Your task to perform on an android device: allow cookies in the chrome app Image 0: 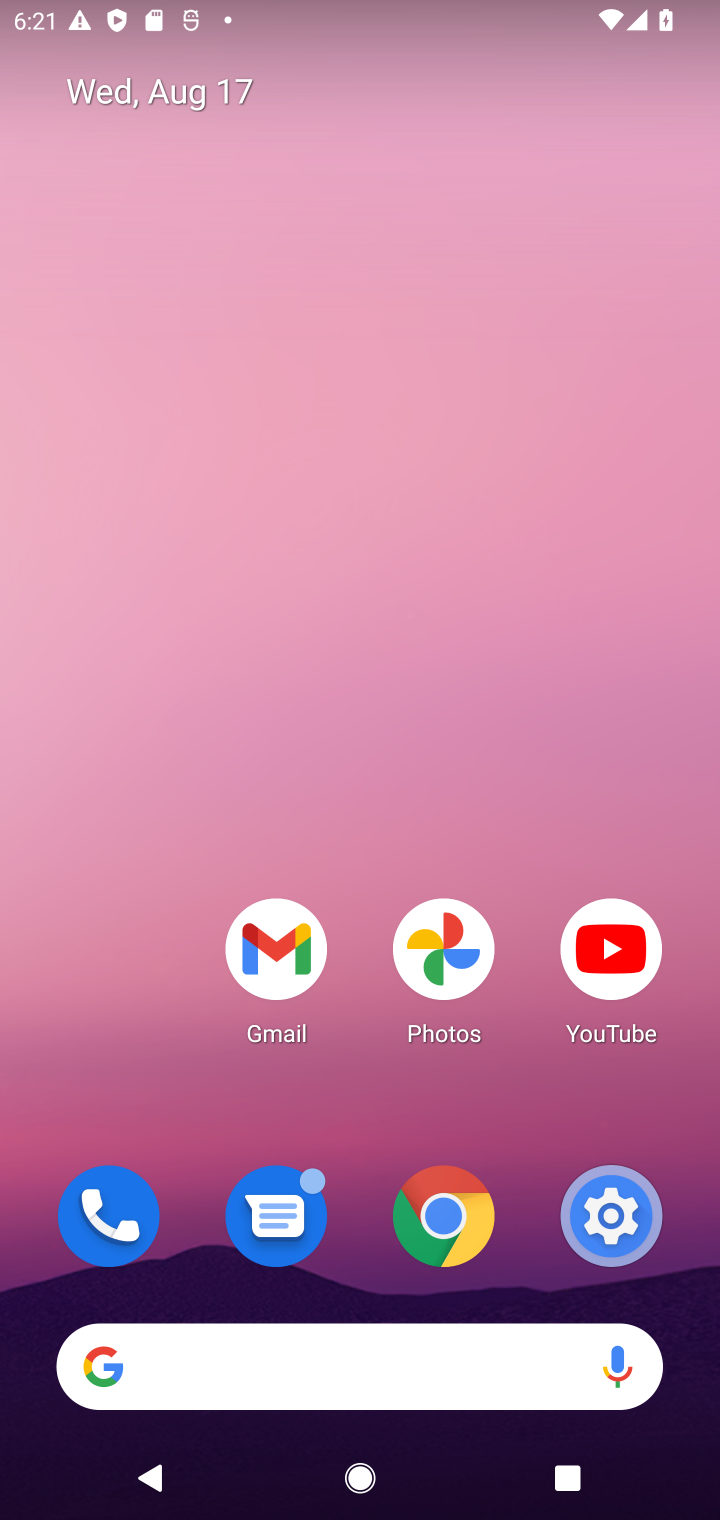
Step 0: drag from (387, 1265) to (418, 74)
Your task to perform on an android device: allow cookies in the chrome app Image 1: 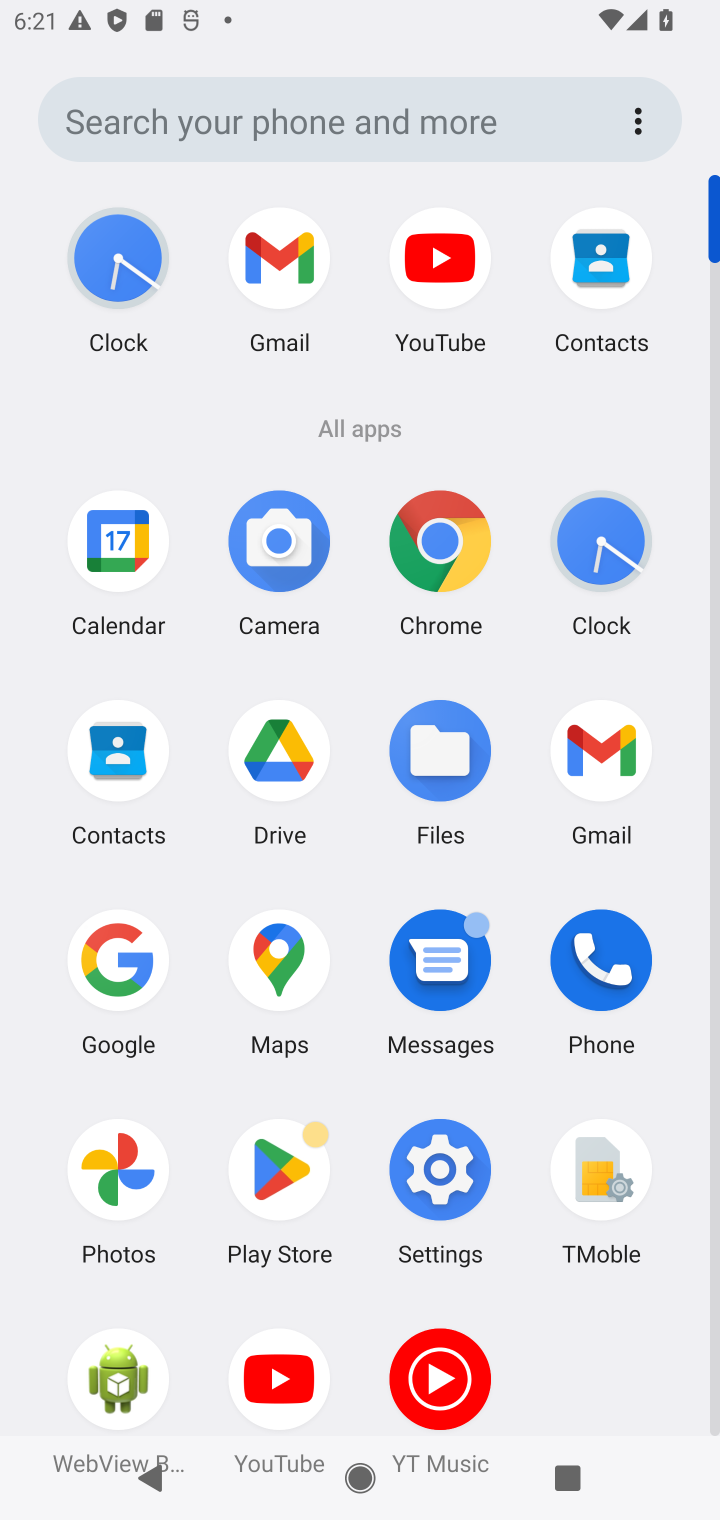
Step 1: click (404, 523)
Your task to perform on an android device: allow cookies in the chrome app Image 2: 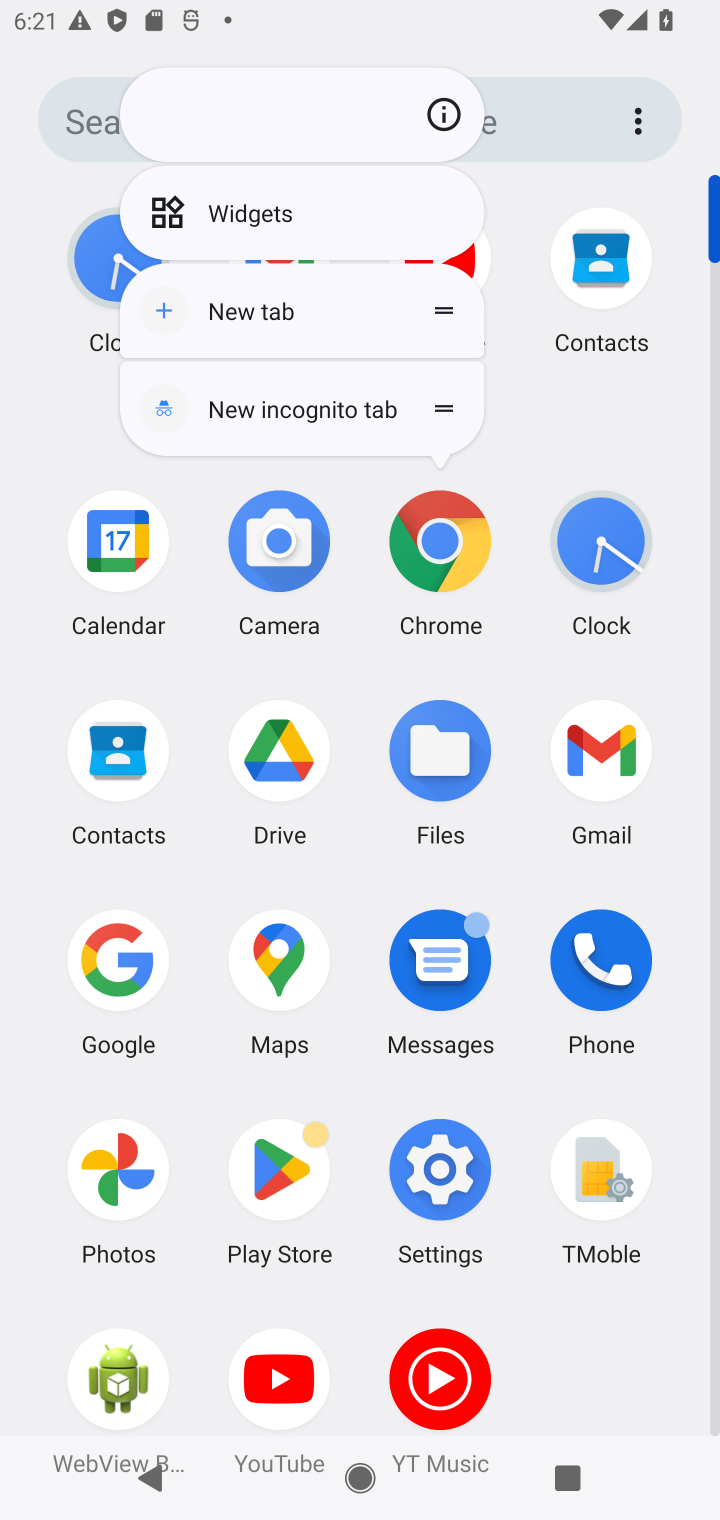
Step 2: click (457, 551)
Your task to perform on an android device: allow cookies in the chrome app Image 3: 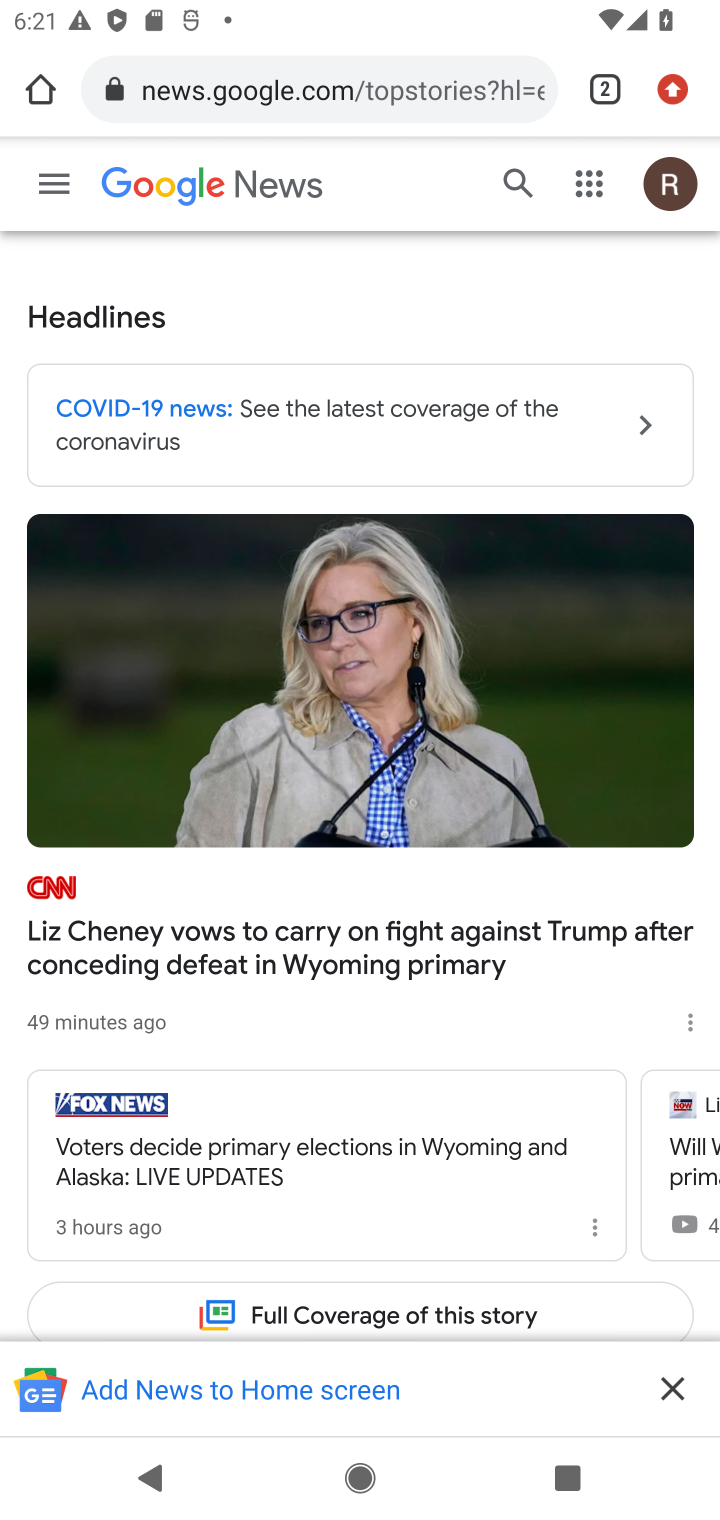
Step 3: click (256, 83)
Your task to perform on an android device: allow cookies in the chrome app Image 4: 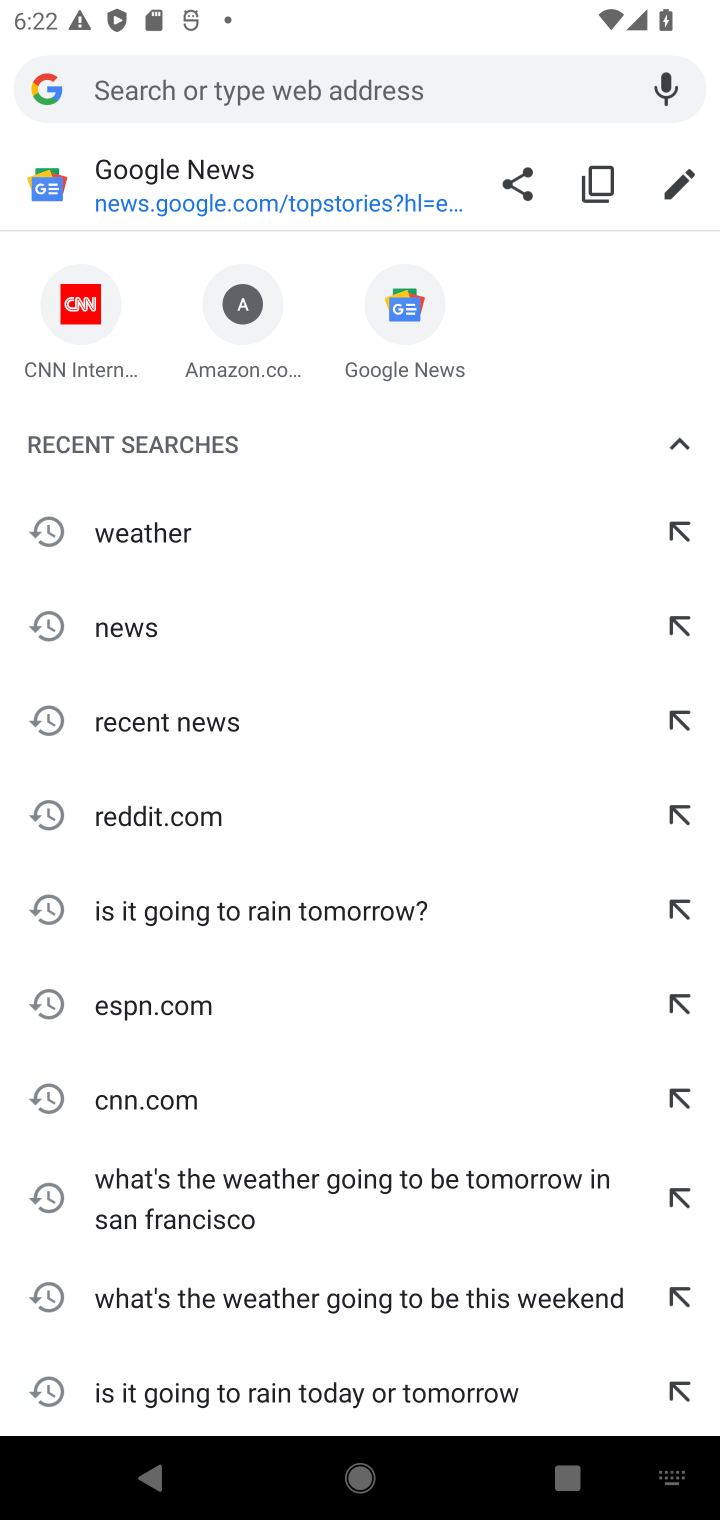
Step 4: press back button
Your task to perform on an android device: allow cookies in the chrome app Image 5: 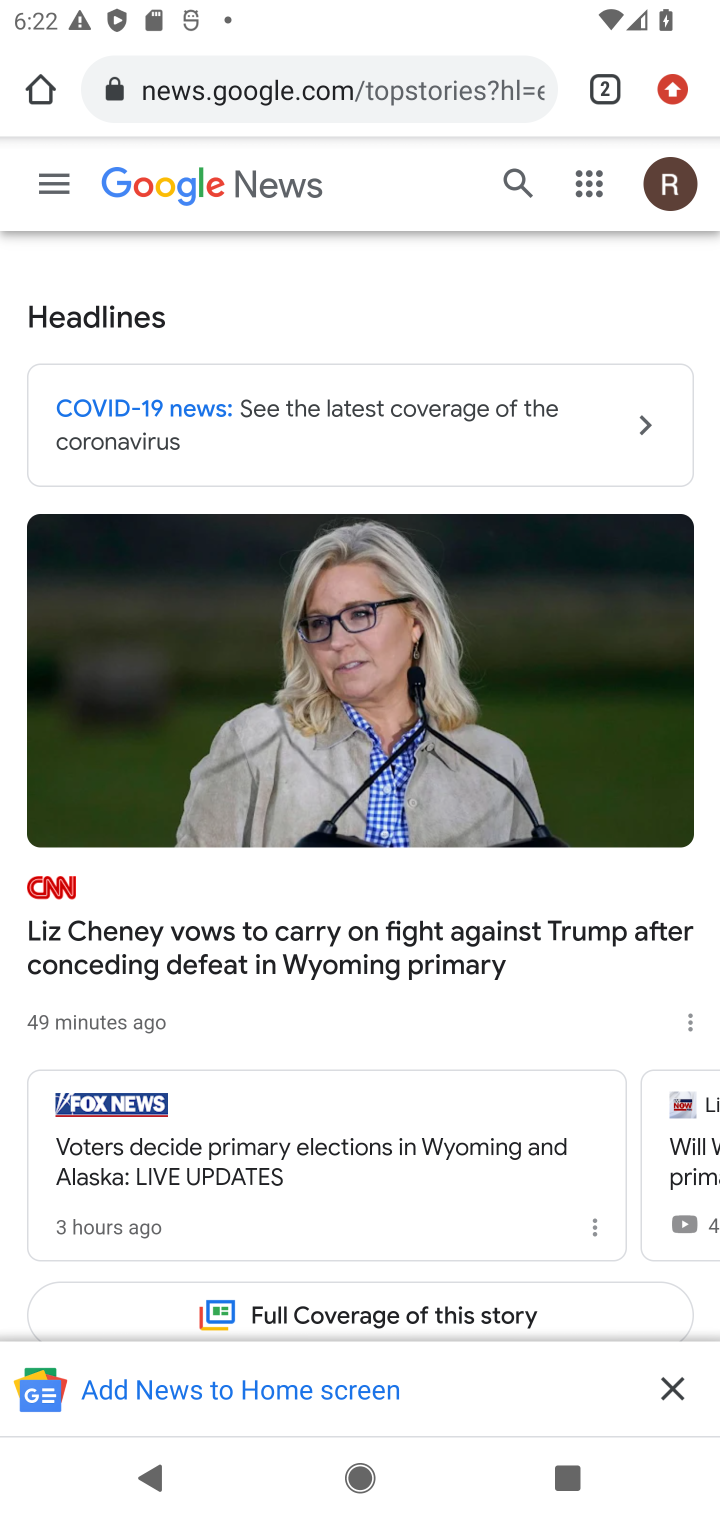
Step 5: click (672, 81)
Your task to perform on an android device: allow cookies in the chrome app Image 6: 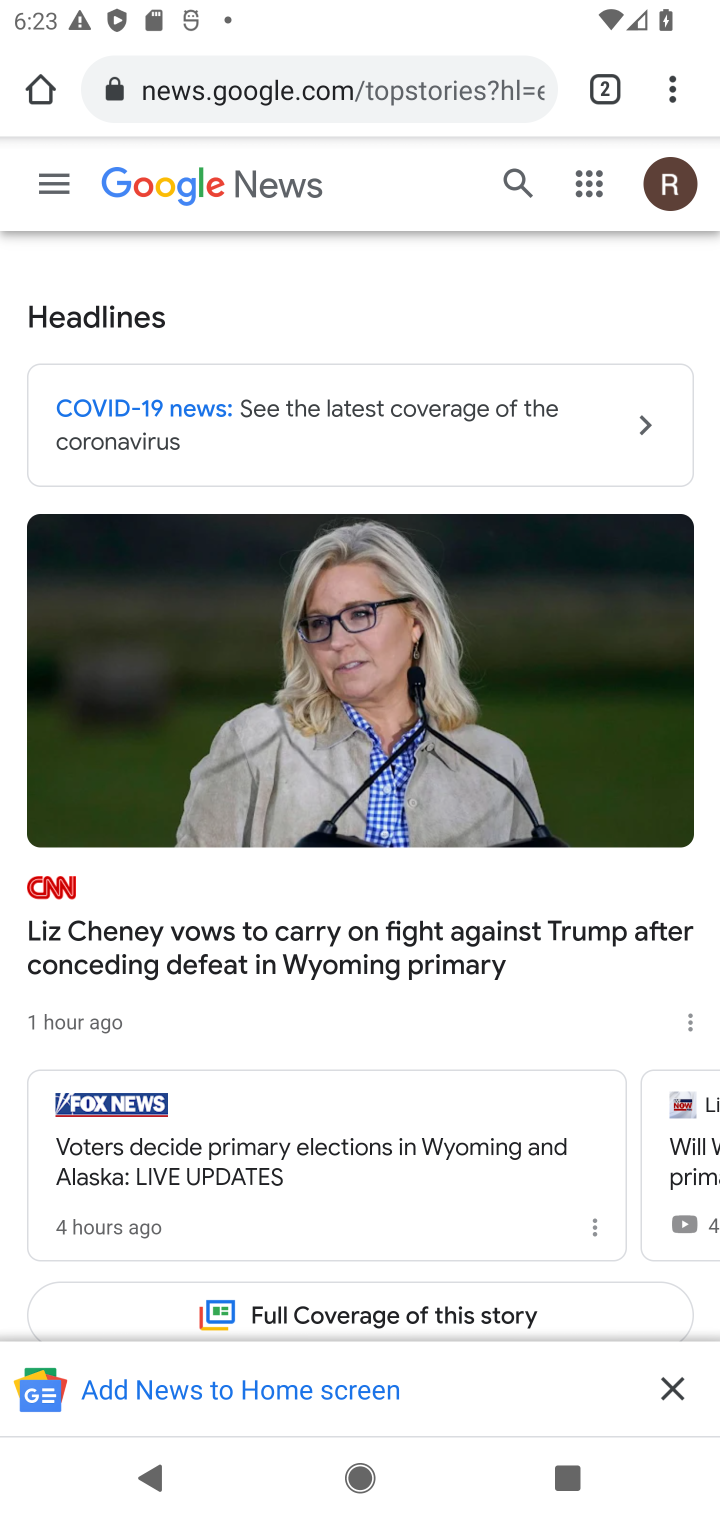
Step 6: drag from (666, 92) to (402, 1206)
Your task to perform on an android device: allow cookies in the chrome app Image 7: 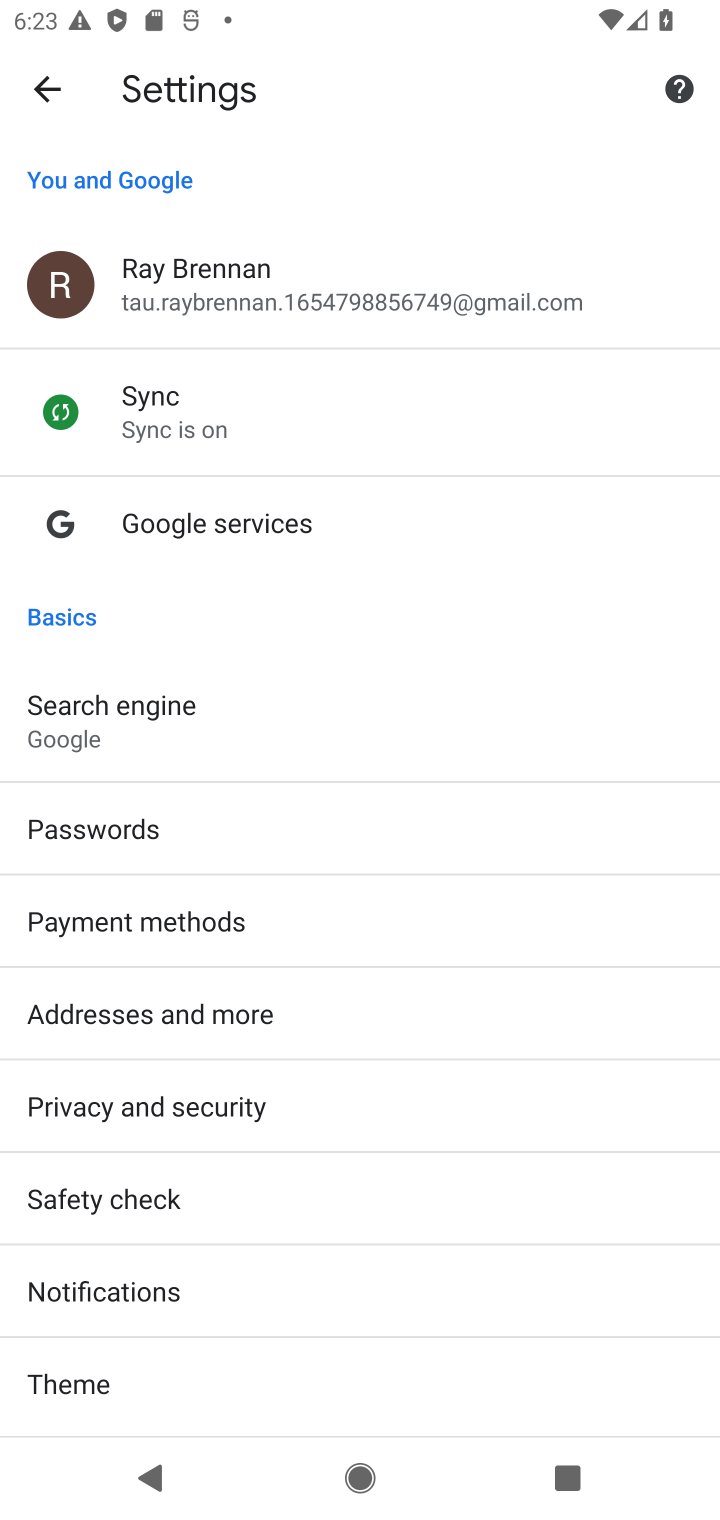
Step 7: drag from (371, 1278) to (394, 279)
Your task to perform on an android device: allow cookies in the chrome app Image 8: 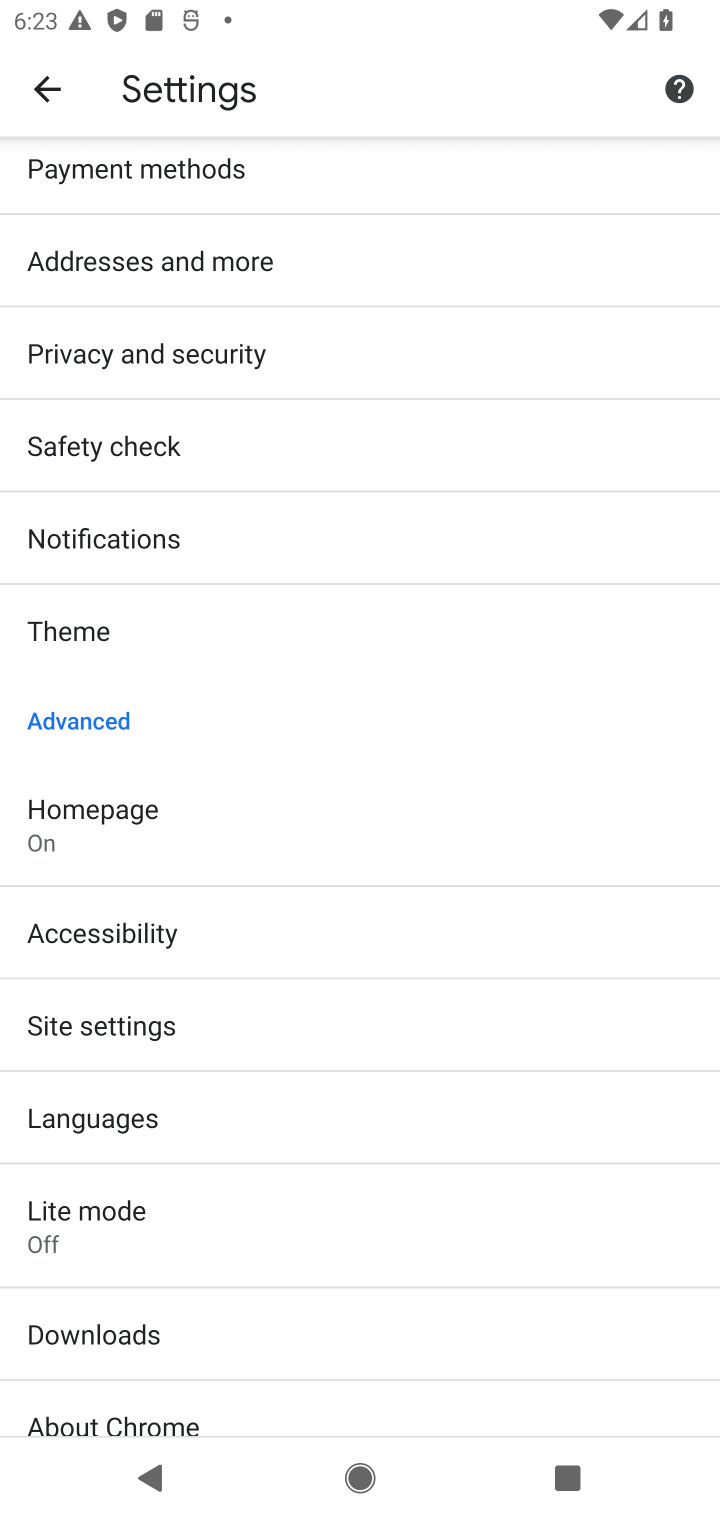
Step 8: drag from (255, 1165) to (312, 349)
Your task to perform on an android device: allow cookies in the chrome app Image 9: 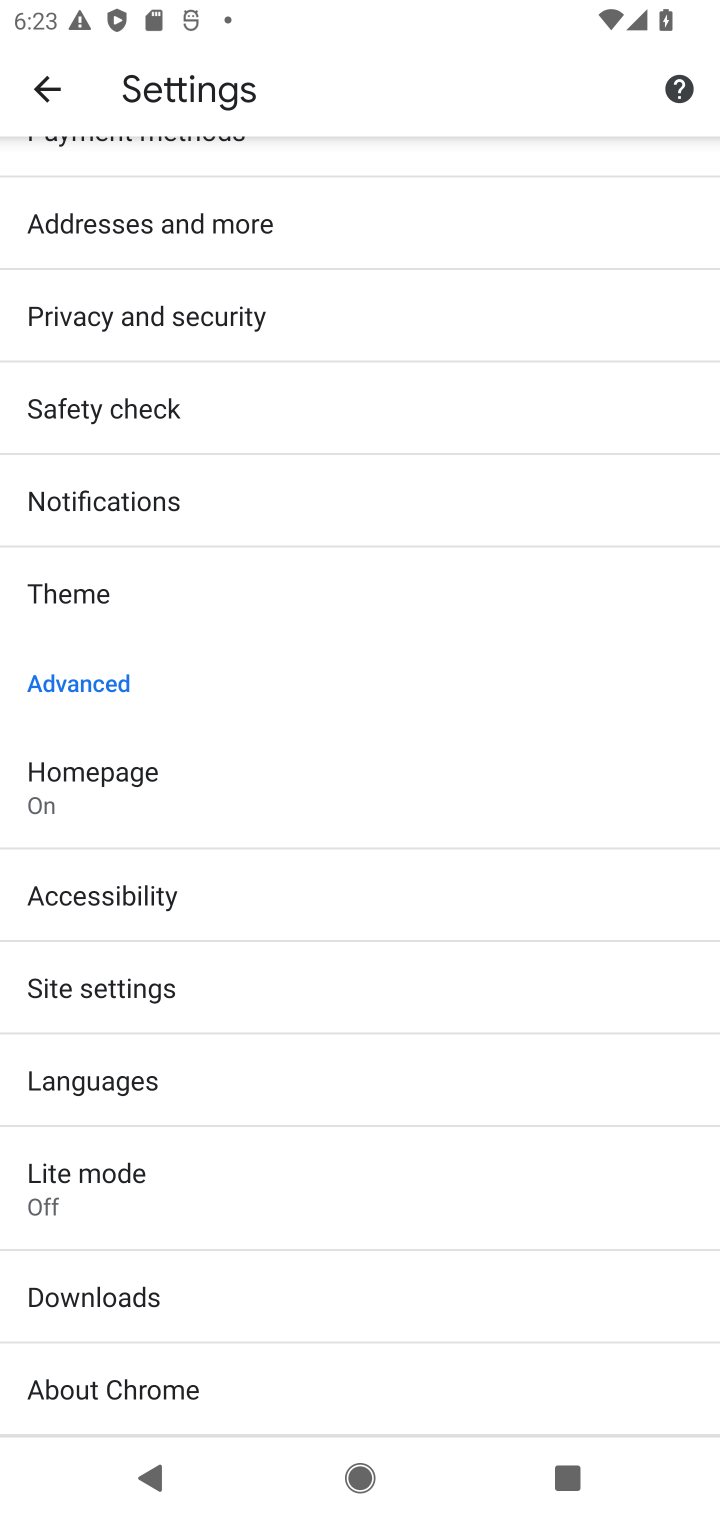
Step 9: click (161, 984)
Your task to perform on an android device: allow cookies in the chrome app Image 10: 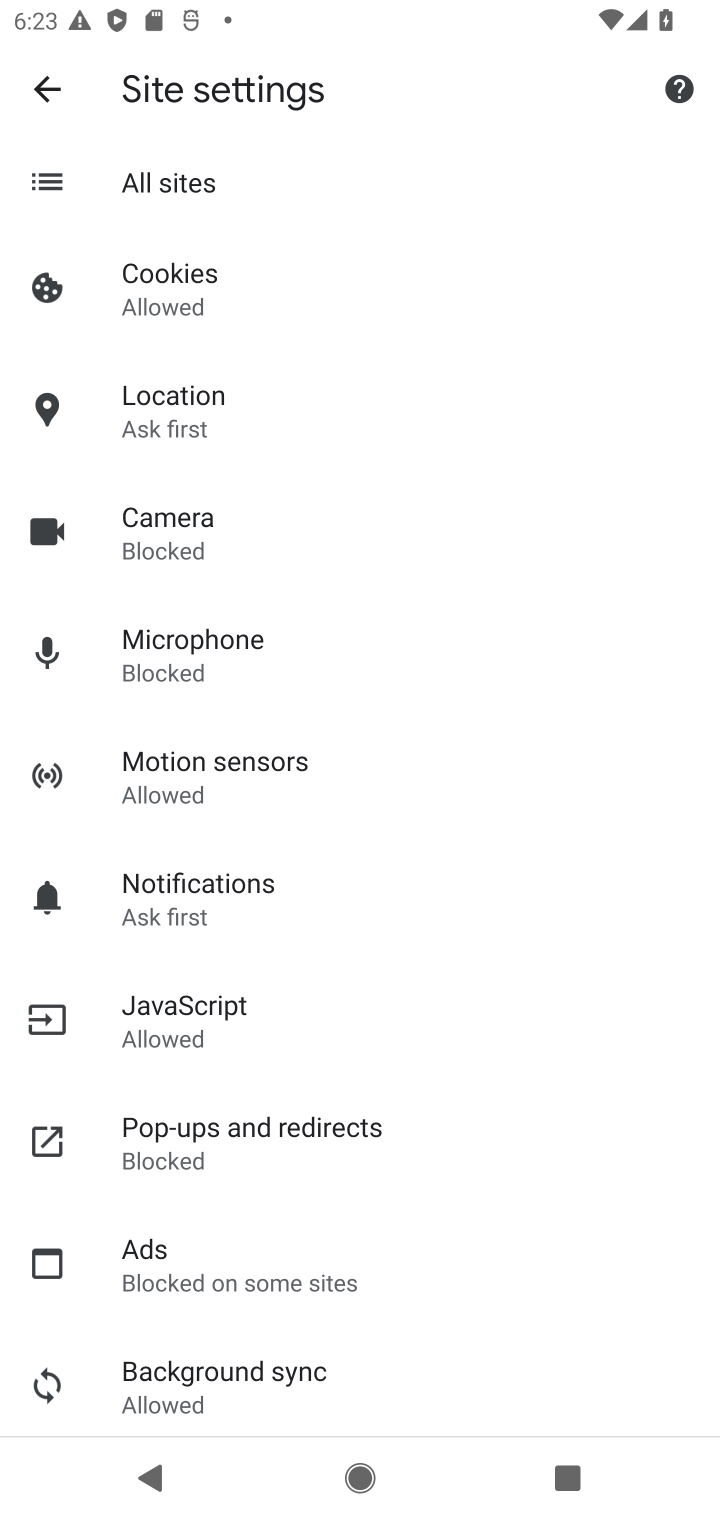
Step 10: click (159, 278)
Your task to perform on an android device: allow cookies in the chrome app Image 11: 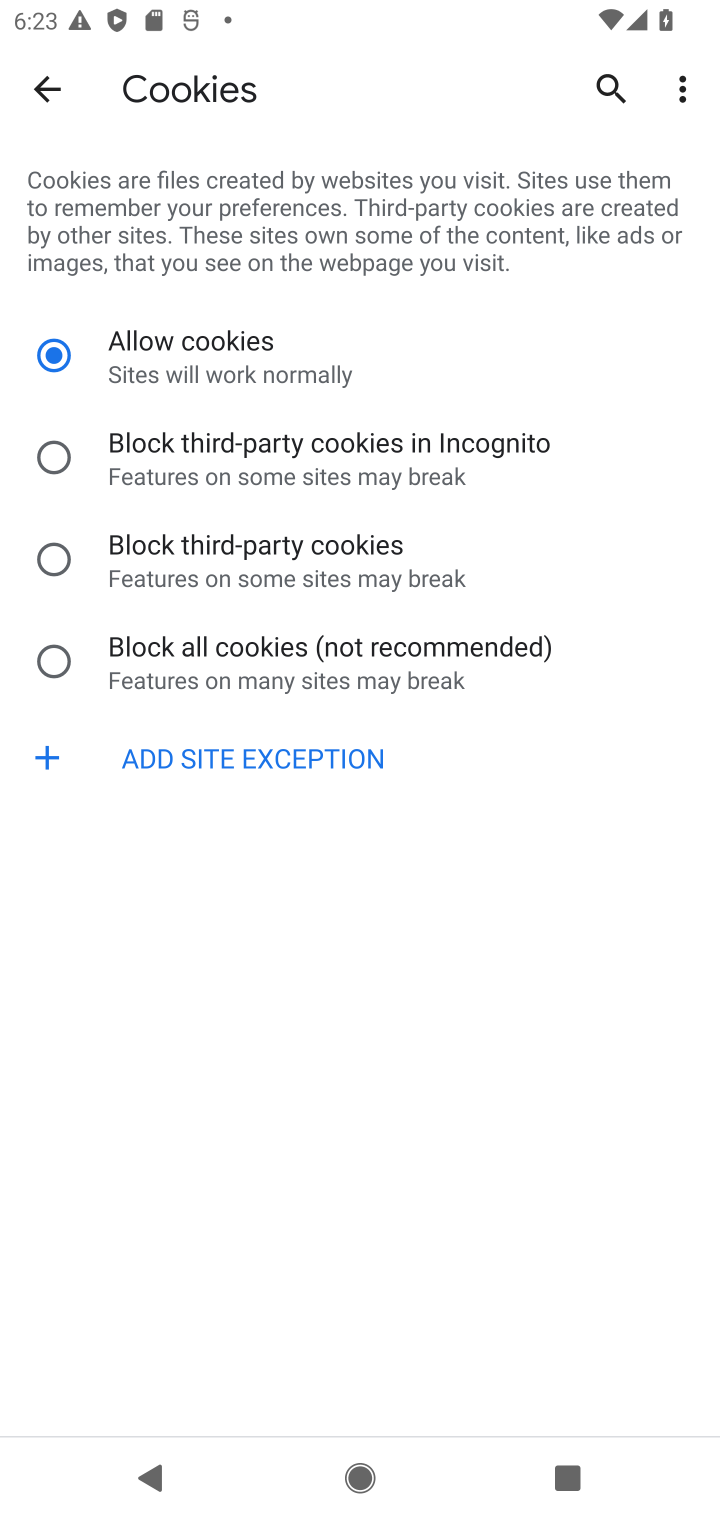
Step 11: task complete